Your task to perform on an android device: toggle pop-ups in chrome Image 0: 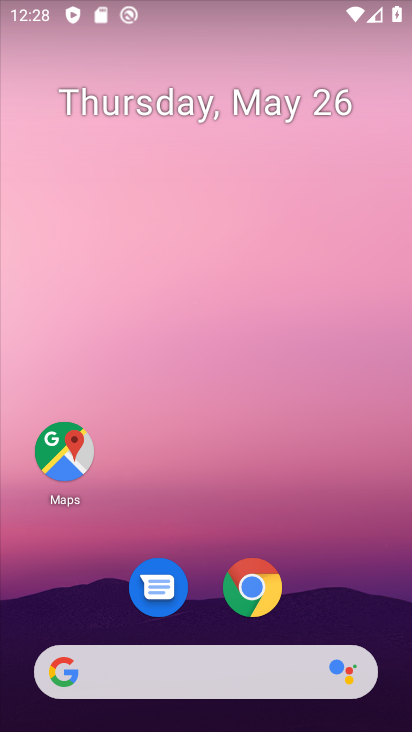
Step 0: drag from (388, 604) to (362, 272)
Your task to perform on an android device: toggle pop-ups in chrome Image 1: 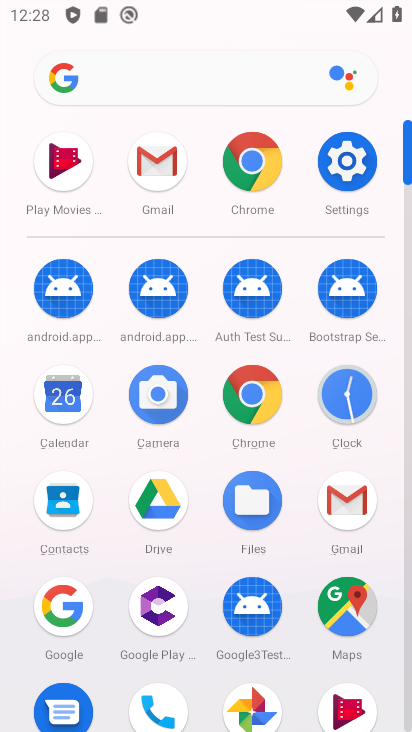
Step 1: click (258, 411)
Your task to perform on an android device: toggle pop-ups in chrome Image 2: 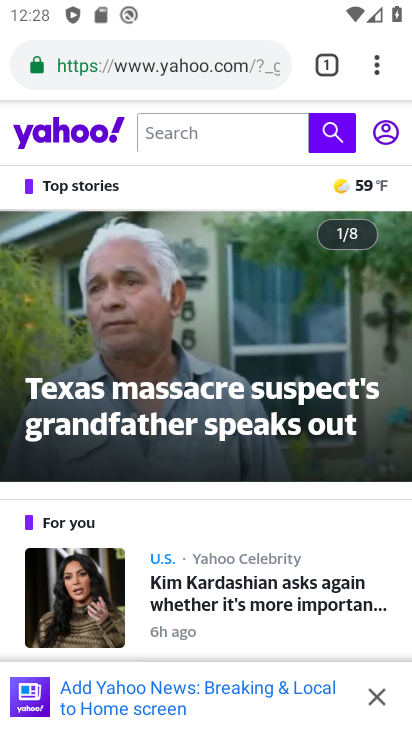
Step 2: click (379, 72)
Your task to perform on an android device: toggle pop-ups in chrome Image 3: 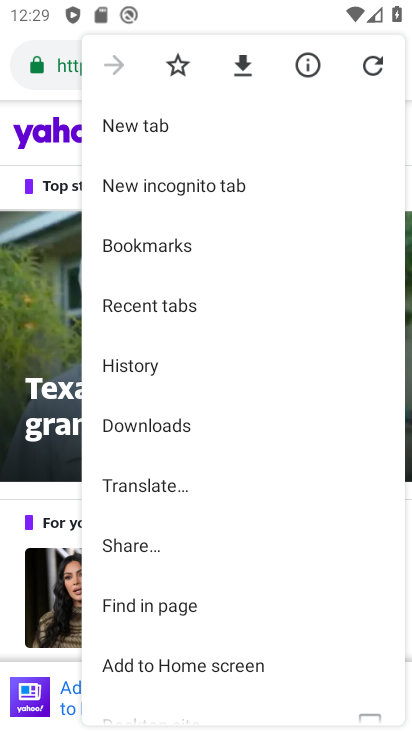
Step 3: drag from (318, 497) to (333, 385)
Your task to perform on an android device: toggle pop-ups in chrome Image 4: 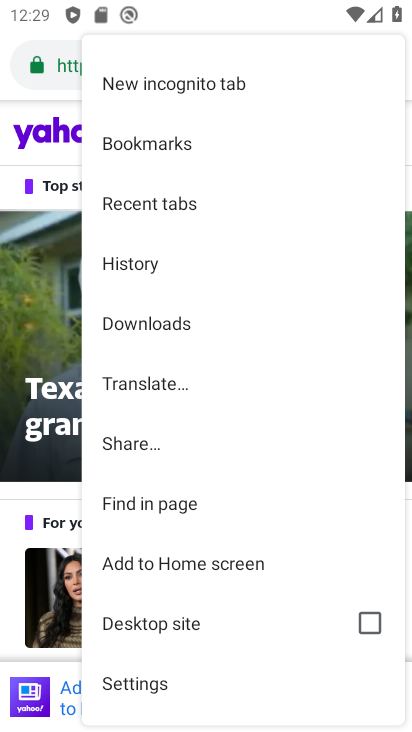
Step 4: drag from (287, 525) to (292, 431)
Your task to perform on an android device: toggle pop-ups in chrome Image 5: 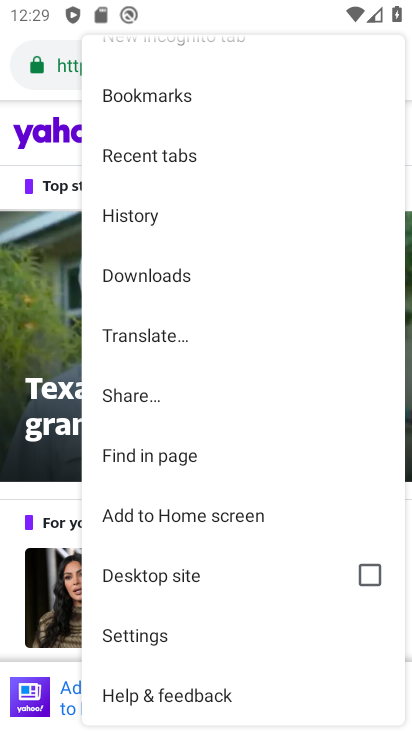
Step 5: click (181, 641)
Your task to perform on an android device: toggle pop-ups in chrome Image 6: 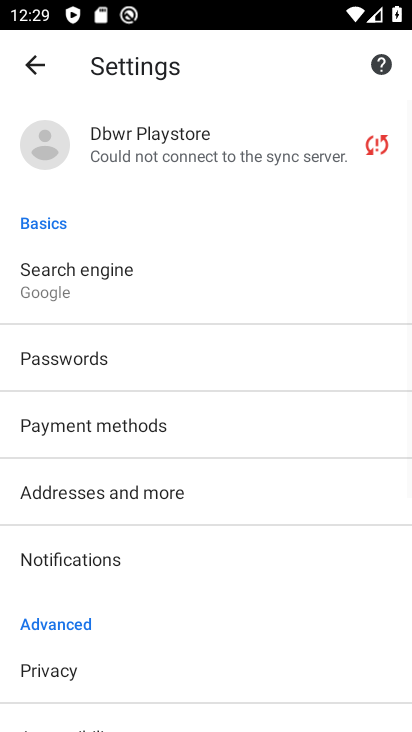
Step 6: drag from (310, 565) to (315, 504)
Your task to perform on an android device: toggle pop-ups in chrome Image 7: 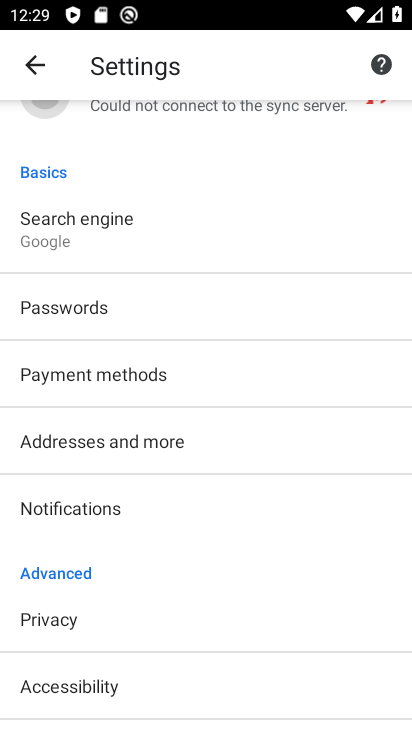
Step 7: drag from (323, 596) to (324, 519)
Your task to perform on an android device: toggle pop-ups in chrome Image 8: 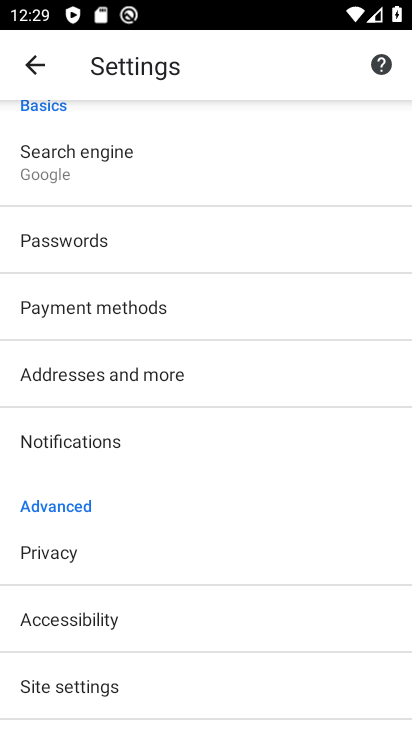
Step 8: drag from (316, 621) to (306, 554)
Your task to perform on an android device: toggle pop-ups in chrome Image 9: 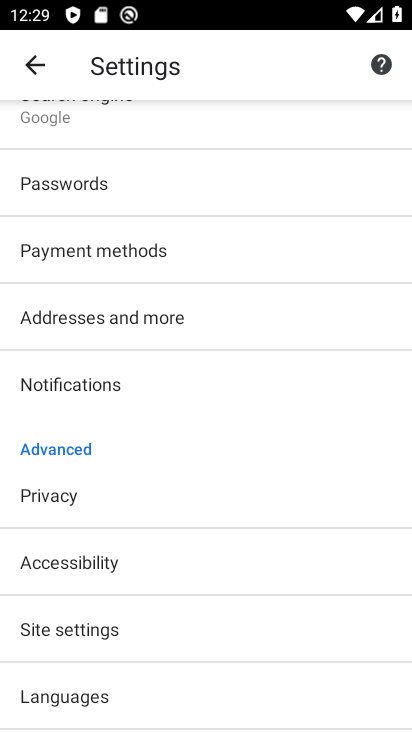
Step 9: drag from (297, 603) to (314, 526)
Your task to perform on an android device: toggle pop-ups in chrome Image 10: 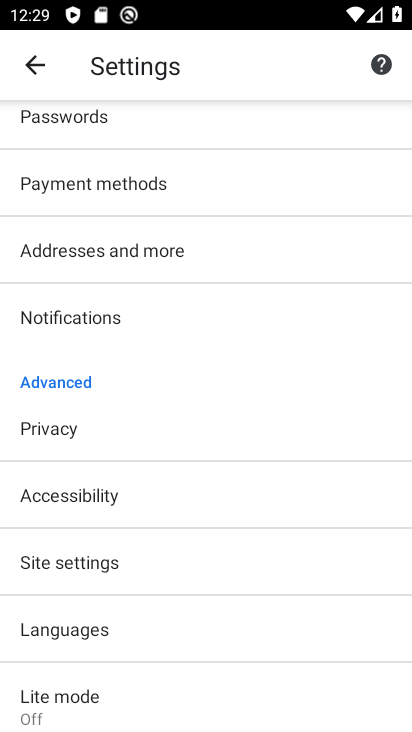
Step 10: drag from (296, 618) to (307, 539)
Your task to perform on an android device: toggle pop-ups in chrome Image 11: 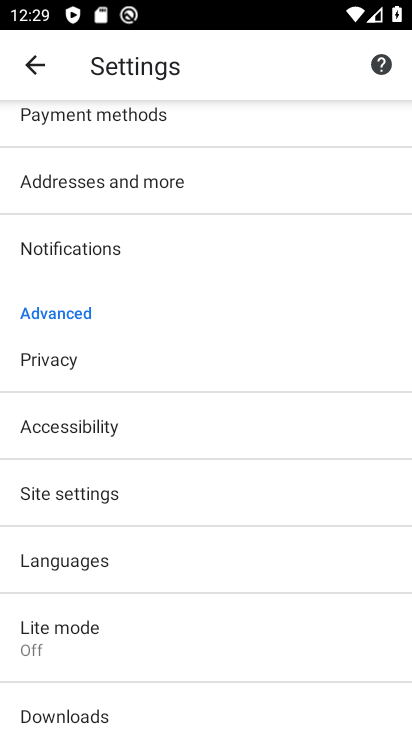
Step 11: drag from (314, 649) to (324, 512)
Your task to perform on an android device: toggle pop-ups in chrome Image 12: 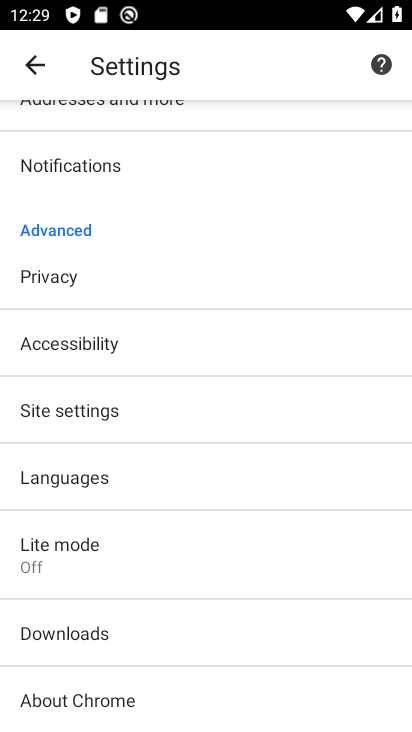
Step 12: click (304, 410)
Your task to perform on an android device: toggle pop-ups in chrome Image 13: 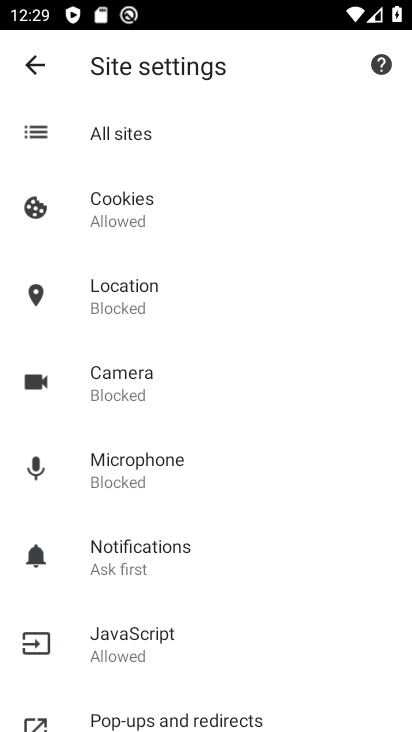
Step 13: drag from (304, 480) to (303, 420)
Your task to perform on an android device: toggle pop-ups in chrome Image 14: 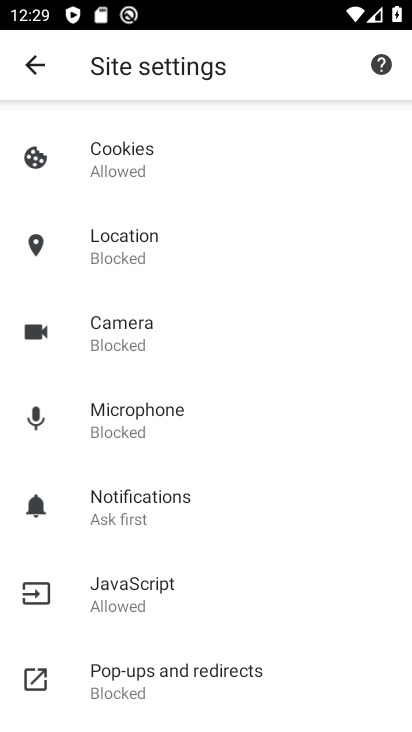
Step 14: drag from (314, 526) to (321, 452)
Your task to perform on an android device: toggle pop-ups in chrome Image 15: 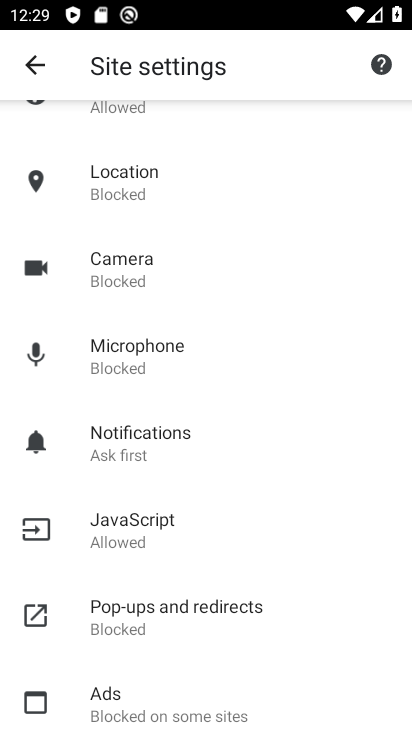
Step 15: drag from (308, 542) to (310, 465)
Your task to perform on an android device: toggle pop-ups in chrome Image 16: 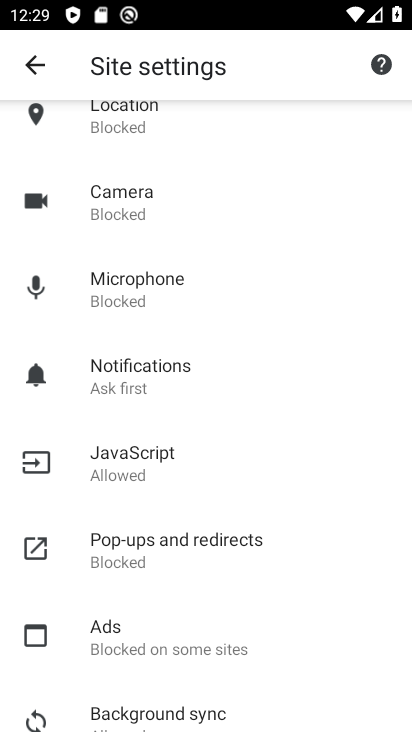
Step 16: drag from (332, 584) to (338, 494)
Your task to perform on an android device: toggle pop-ups in chrome Image 17: 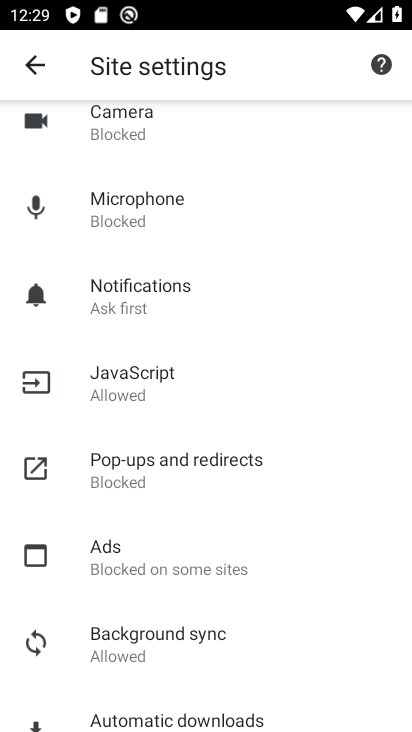
Step 17: drag from (315, 559) to (320, 504)
Your task to perform on an android device: toggle pop-ups in chrome Image 18: 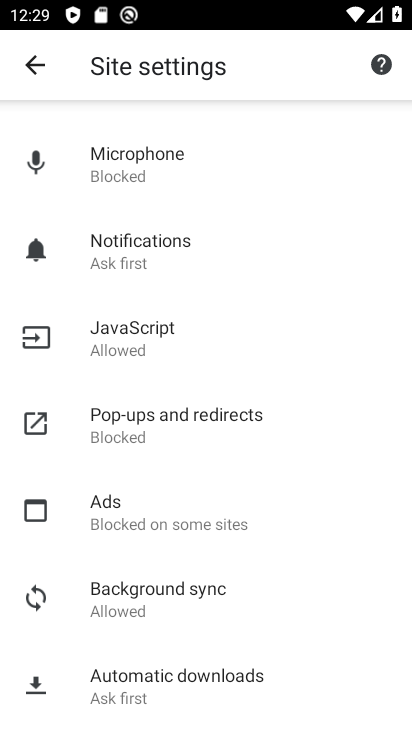
Step 18: click (260, 441)
Your task to perform on an android device: toggle pop-ups in chrome Image 19: 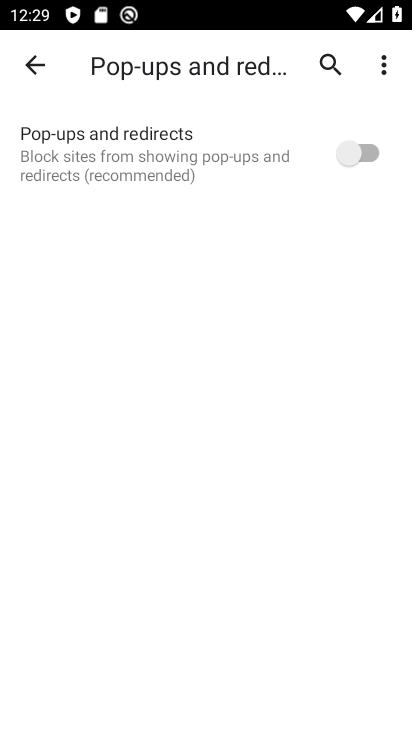
Step 19: click (353, 157)
Your task to perform on an android device: toggle pop-ups in chrome Image 20: 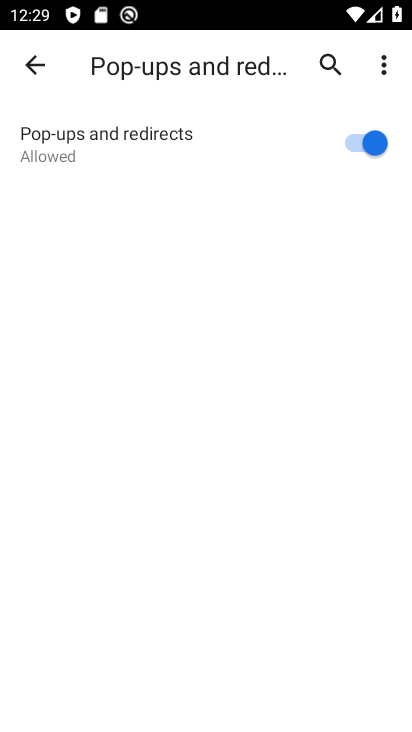
Step 20: task complete